Your task to perform on an android device: open wifi settings Image 0: 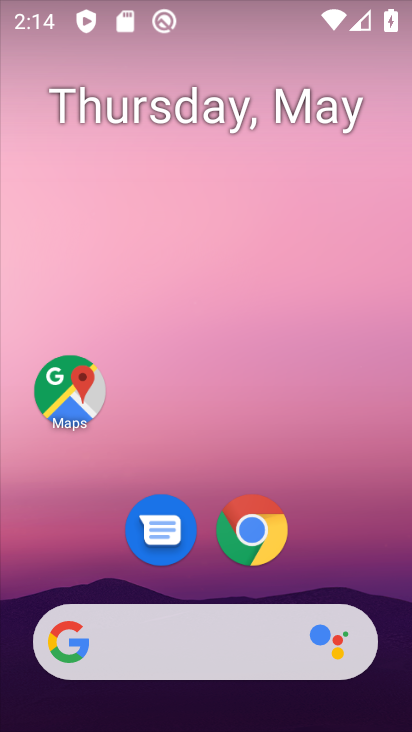
Step 0: press home button
Your task to perform on an android device: open wifi settings Image 1: 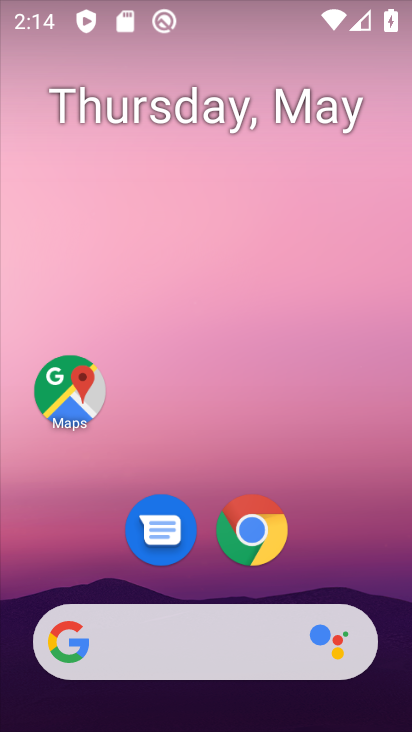
Step 1: drag from (172, 634) to (290, 205)
Your task to perform on an android device: open wifi settings Image 2: 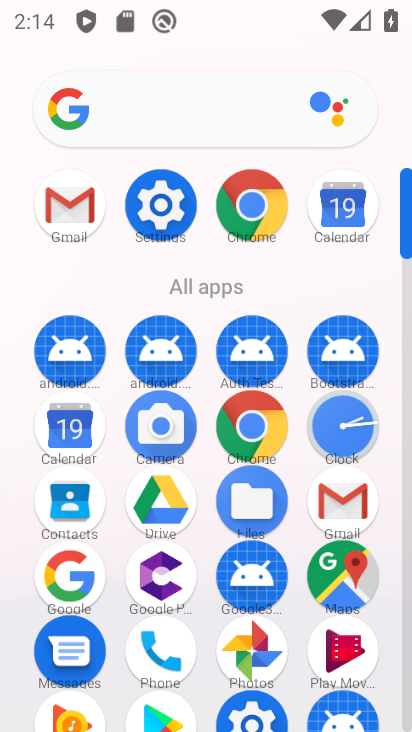
Step 2: click (178, 203)
Your task to perform on an android device: open wifi settings Image 3: 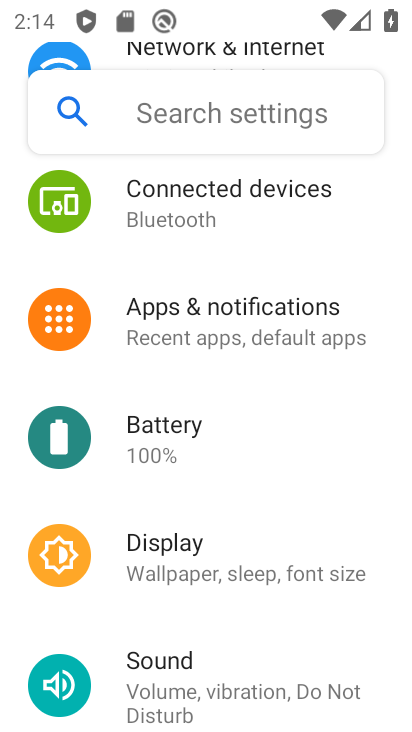
Step 3: drag from (338, 219) to (254, 531)
Your task to perform on an android device: open wifi settings Image 4: 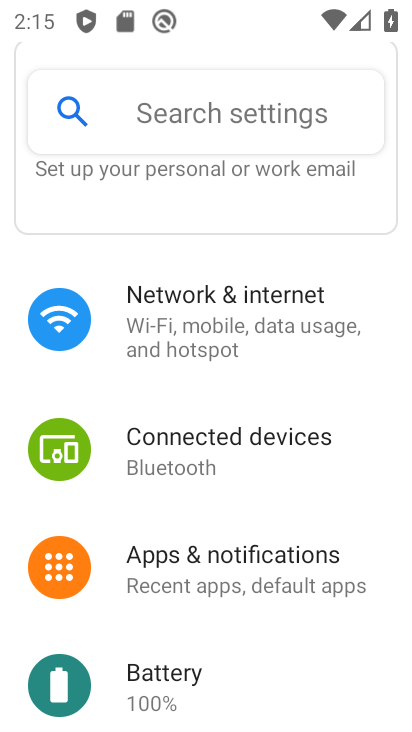
Step 4: click (242, 320)
Your task to perform on an android device: open wifi settings Image 5: 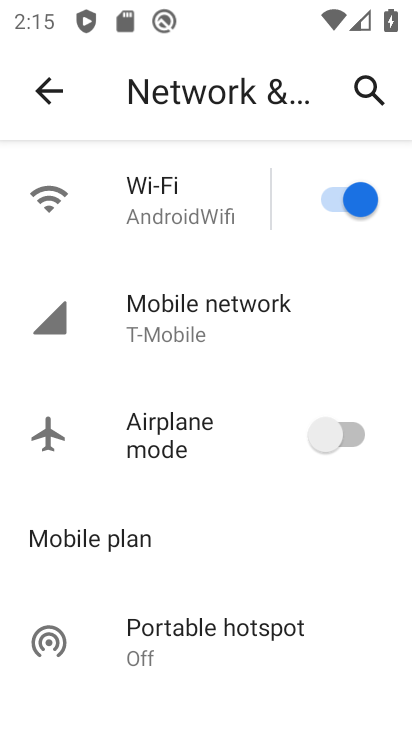
Step 5: click (173, 213)
Your task to perform on an android device: open wifi settings Image 6: 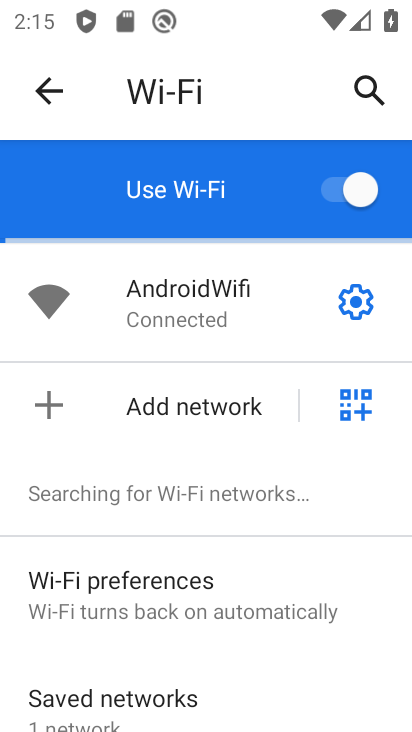
Step 6: task complete